Your task to perform on an android device: Open Android settings Image 0: 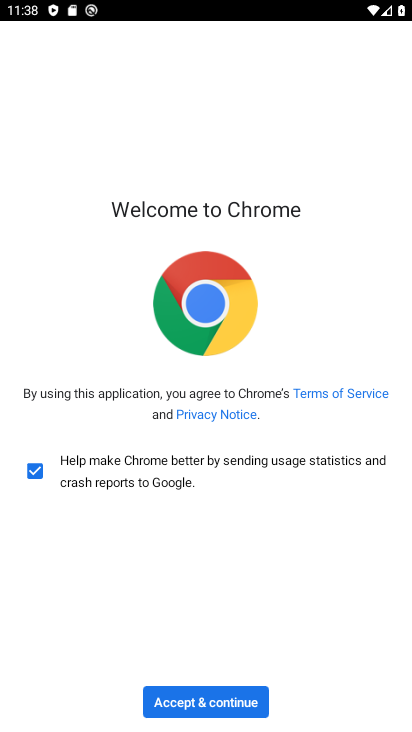
Step 0: press home button
Your task to perform on an android device: Open Android settings Image 1: 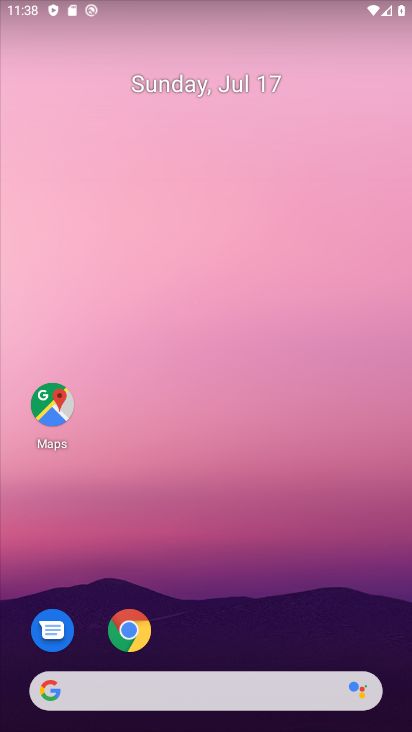
Step 1: drag from (178, 617) to (174, 117)
Your task to perform on an android device: Open Android settings Image 2: 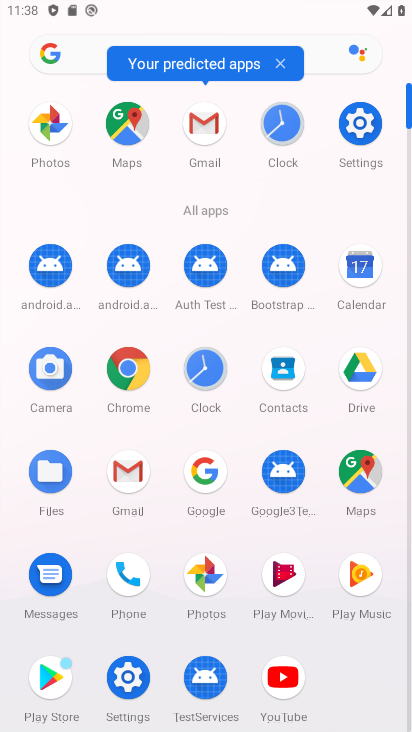
Step 2: click (365, 131)
Your task to perform on an android device: Open Android settings Image 3: 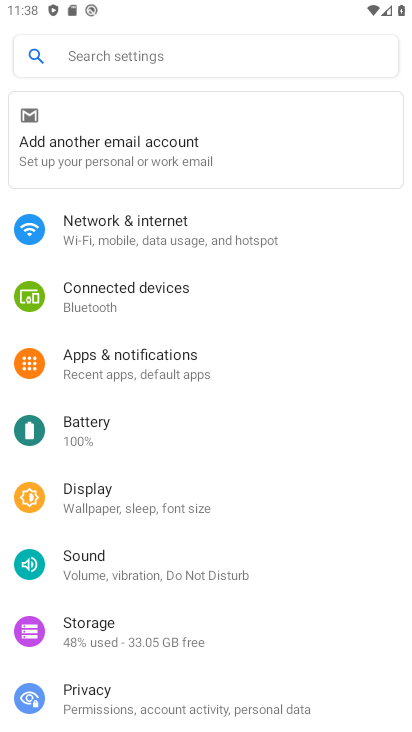
Step 3: task complete